Your task to perform on an android device: Do I have any events tomorrow? Image 0: 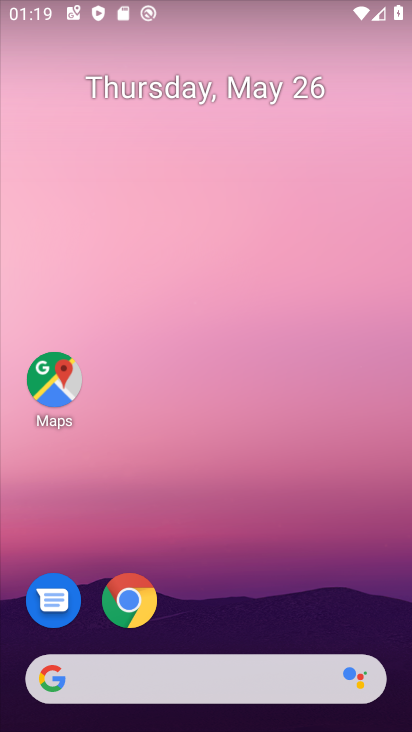
Step 0: drag from (236, 620) to (227, 567)
Your task to perform on an android device: Do I have any events tomorrow? Image 1: 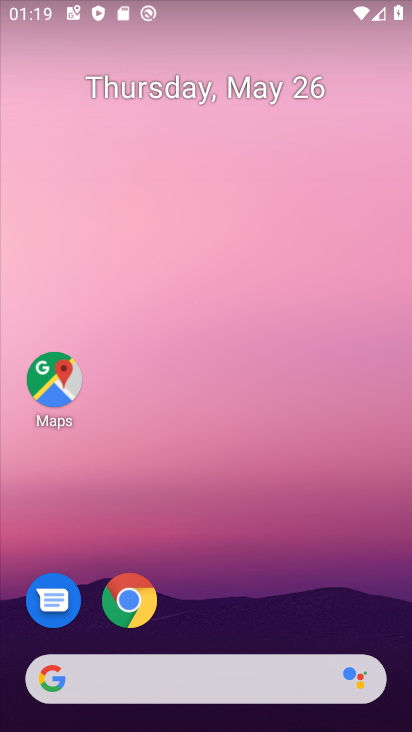
Step 1: drag from (290, 655) to (314, 210)
Your task to perform on an android device: Do I have any events tomorrow? Image 2: 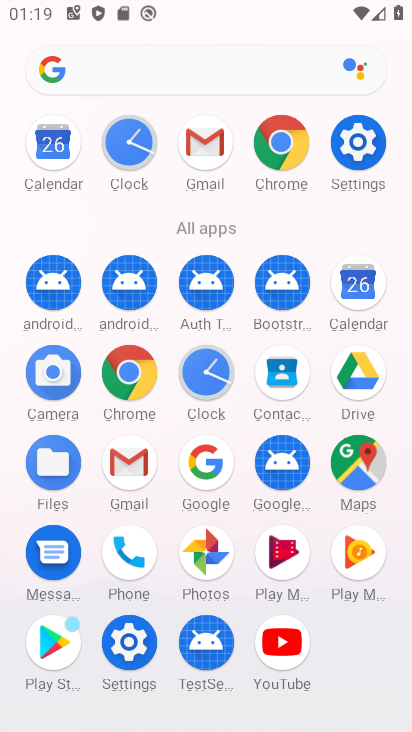
Step 2: click (77, 157)
Your task to perform on an android device: Do I have any events tomorrow? Image 3: 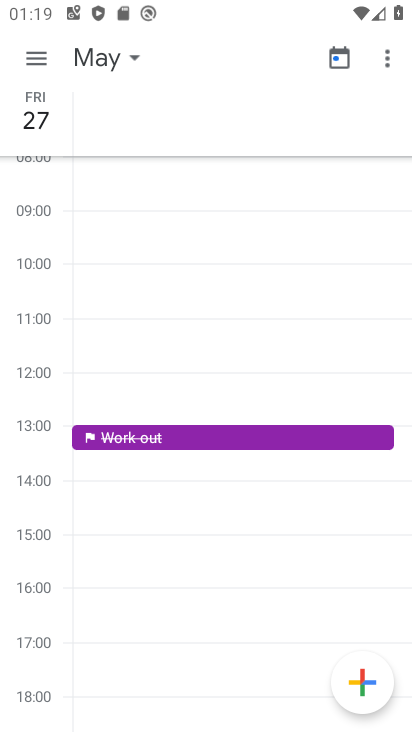
Step 3: click (36, 64)
Your task to perform on an android device: Do I have any events tomorrow? Image 4: 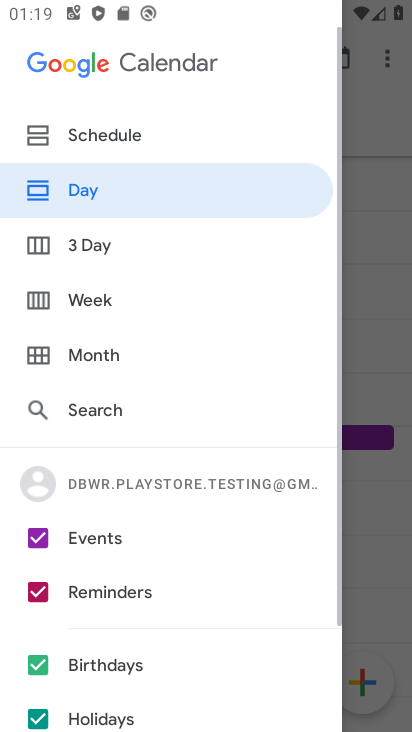
Step 4: click (83, 359)
Your task to perform on an android device: Do I have any events tomorrow? Image 5: 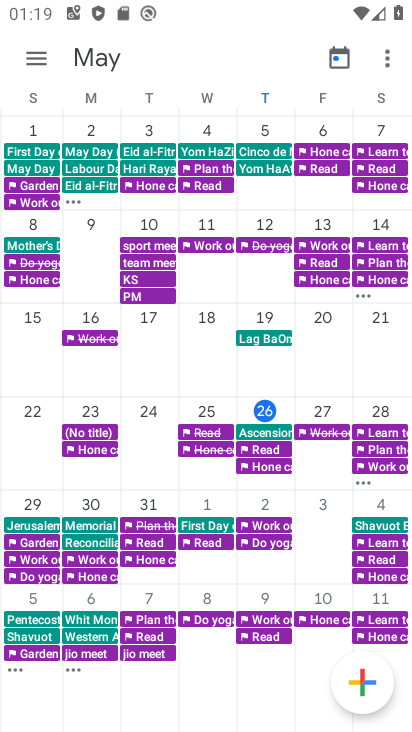
Step 5: click (317, 434)
Your task to perform on an android device: Do I have any events tomorrow? Image 6: 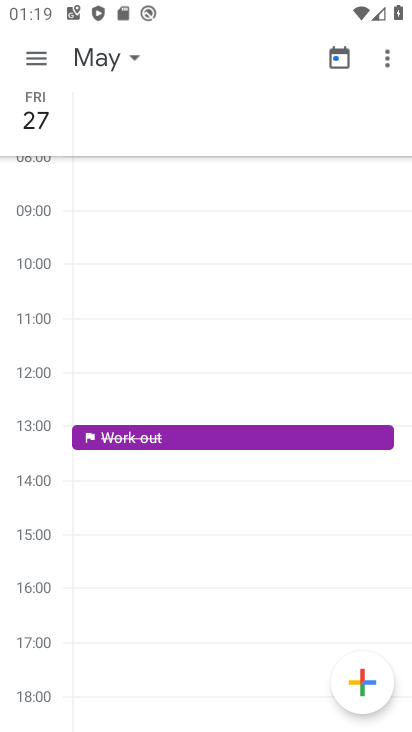
Step 6: task complete